Your task to perform on an android device: Add logitech g933 to the cart on amazon Image 0: 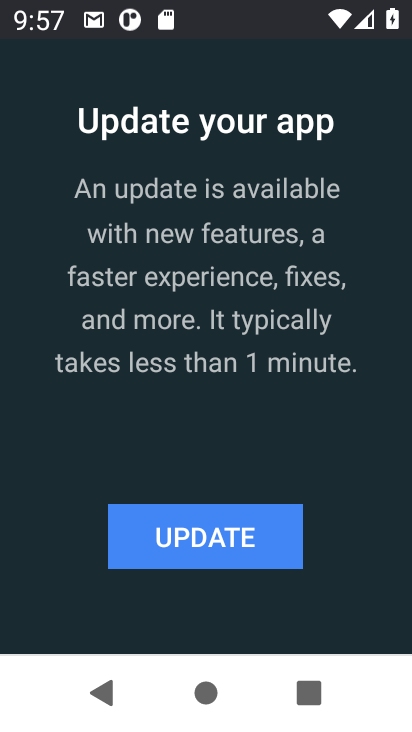
Step 0: task complete